Your task to perform on an android device: Search for flights from Tokyo to NYC Image 0: 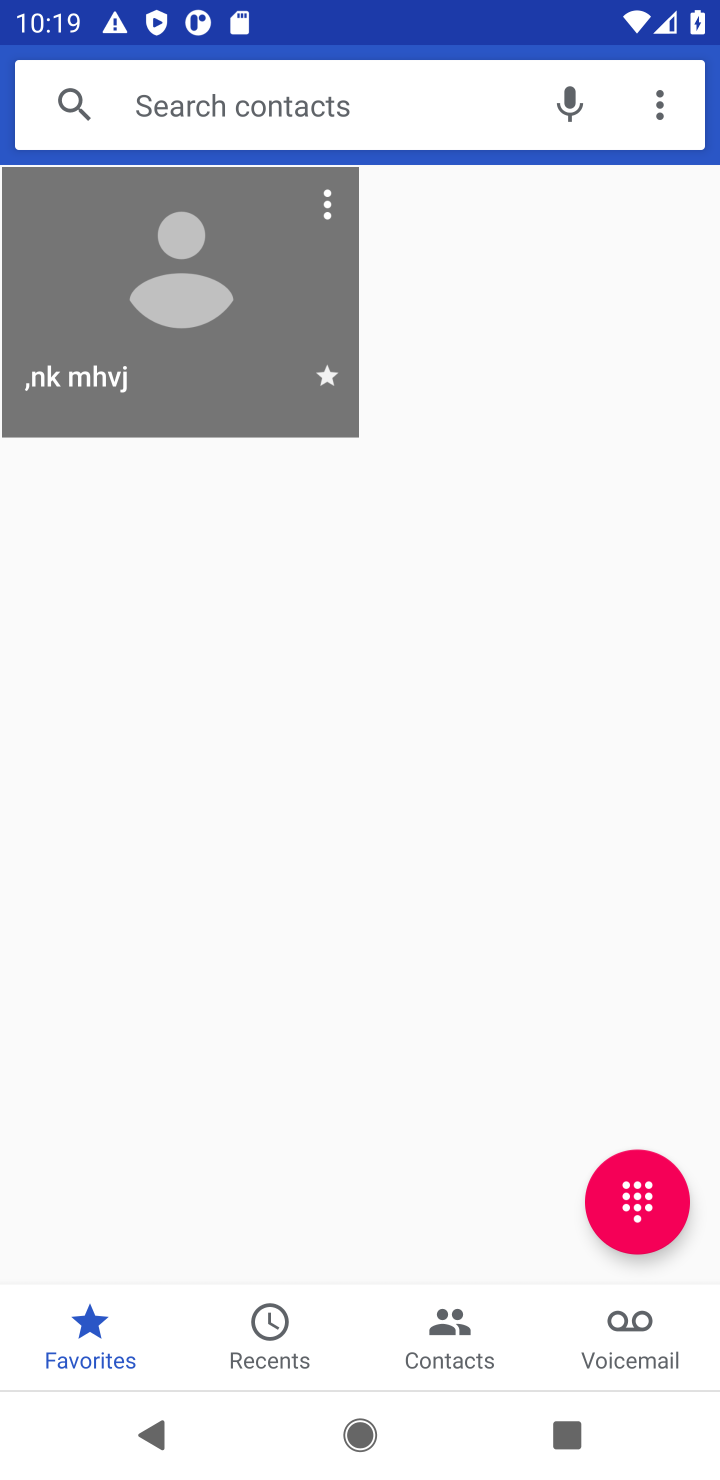
Step 0: press home button
Your task to perform on an android device: Search for flights from Tokyo to NYC Image 1: 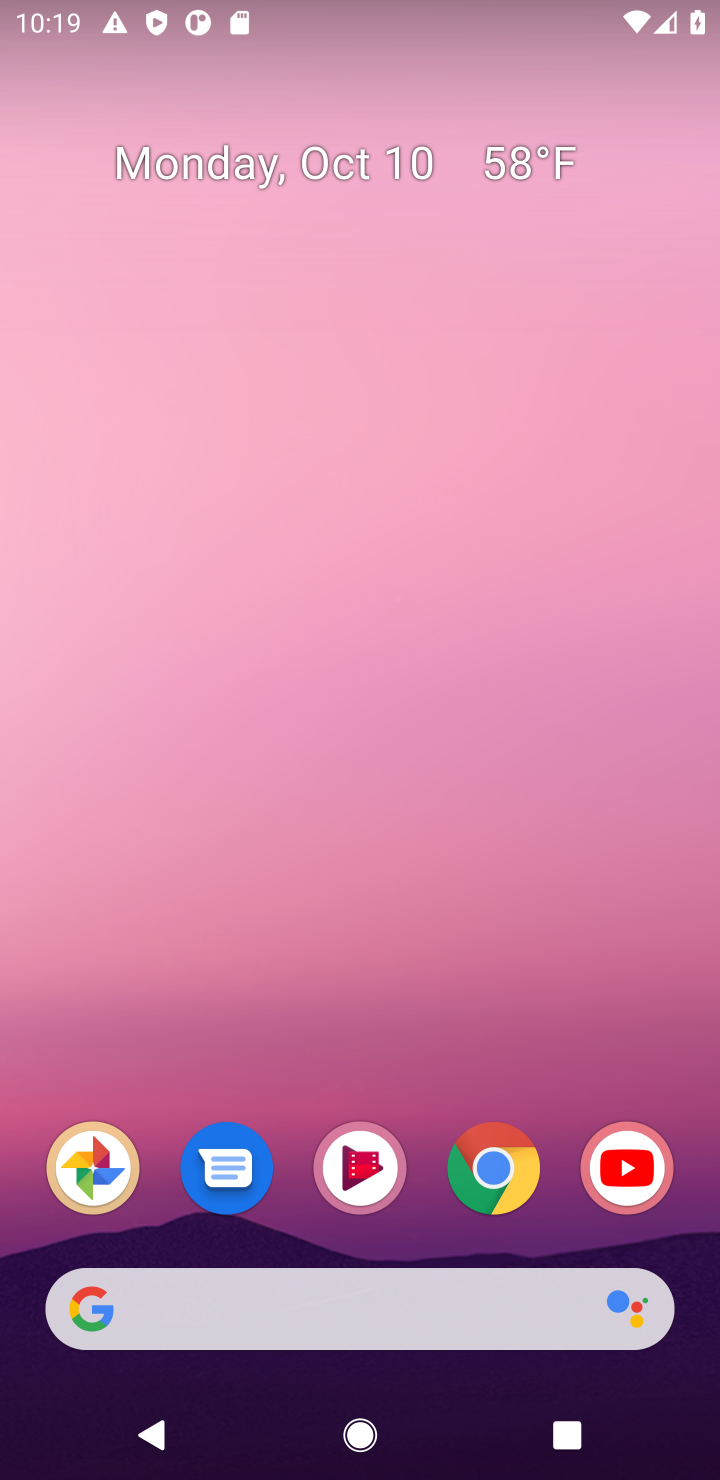
Step 1: click (374, 1283)
Your task to perform on an android device: Search for flights from Tokyo to NYC Image 2: 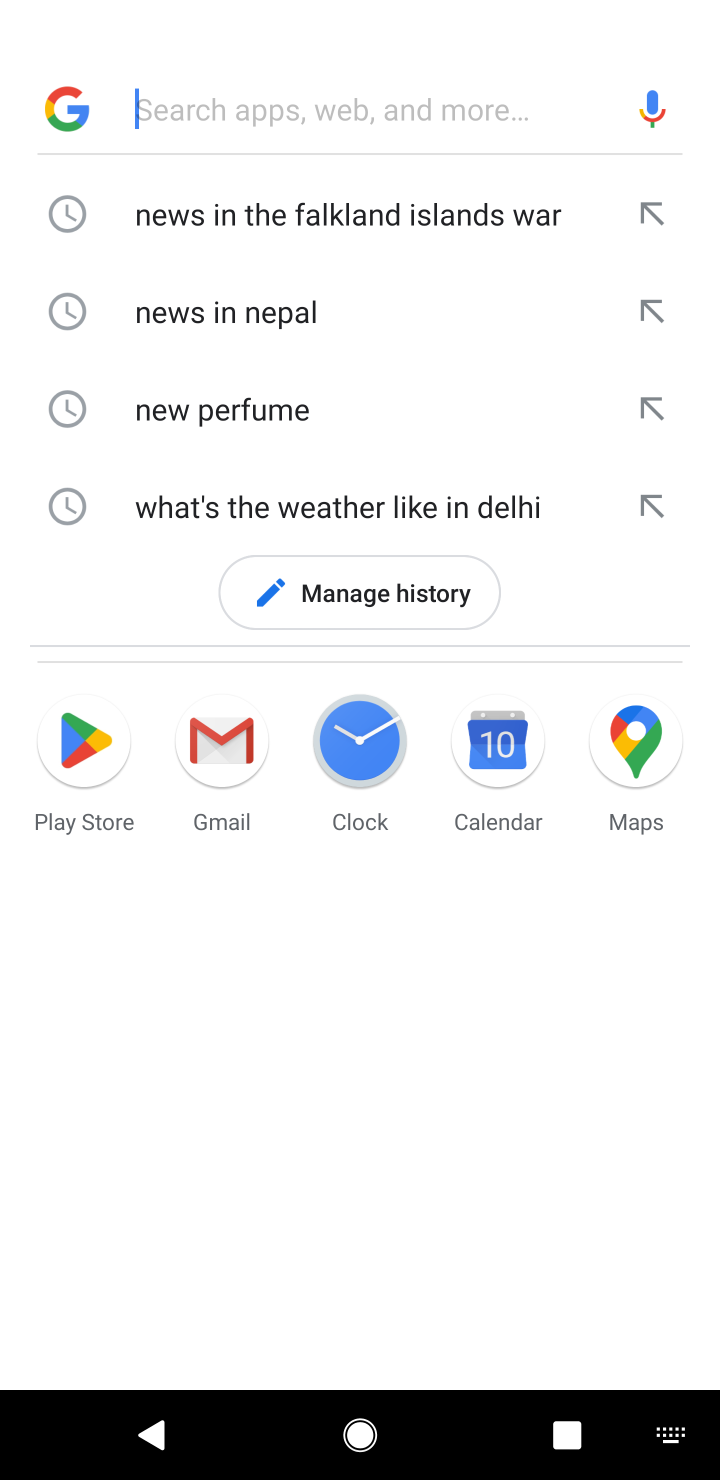
Step 2: type "flights from Tokyo to NYC"
Your task to perform on an android device: Search for flights from Tokyo to NYC Image 3: 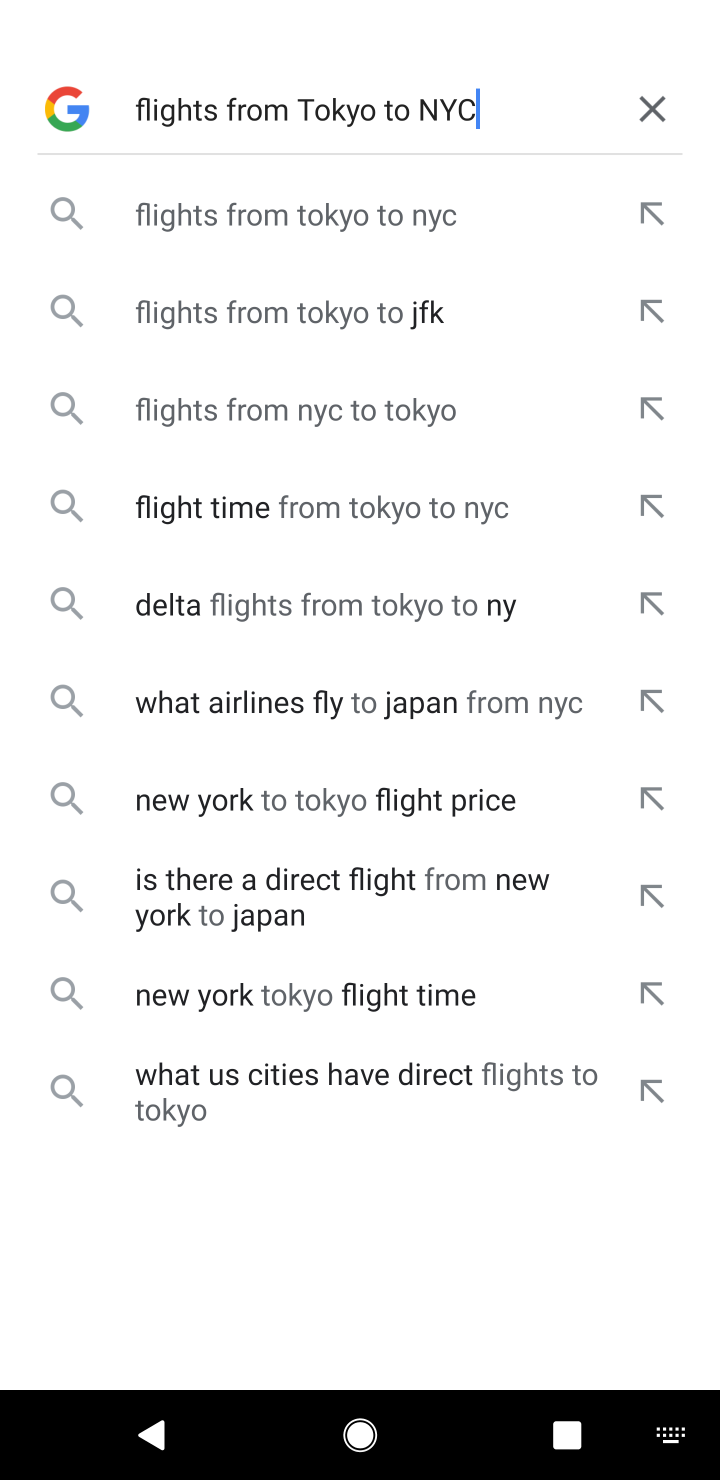
Step 3: click (350, 115)
Your task to perform on an android device: Search for flights from Tokyo to NYC Image 4: 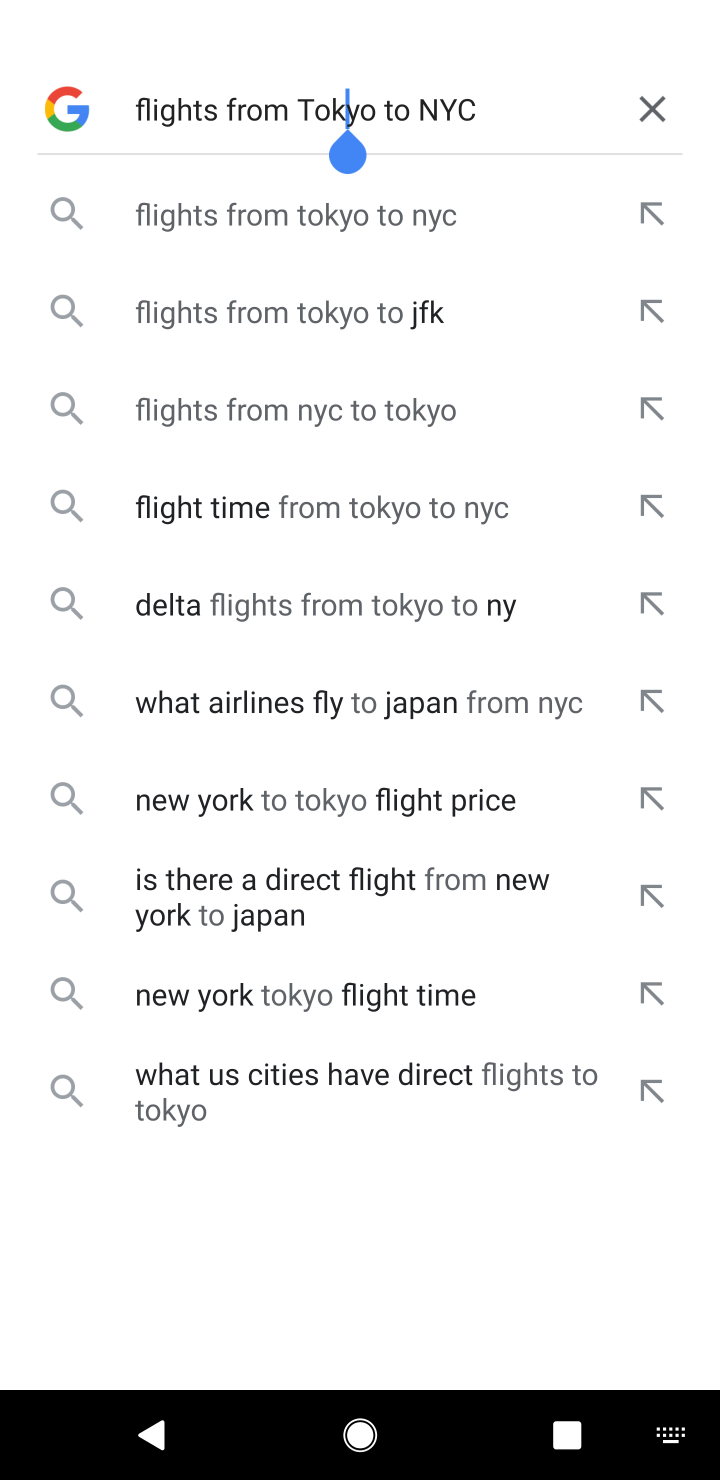
Step 4: click (494, 204)
Your task to perform on an android device: Search for flights from Tokyo to NYC Image 5: 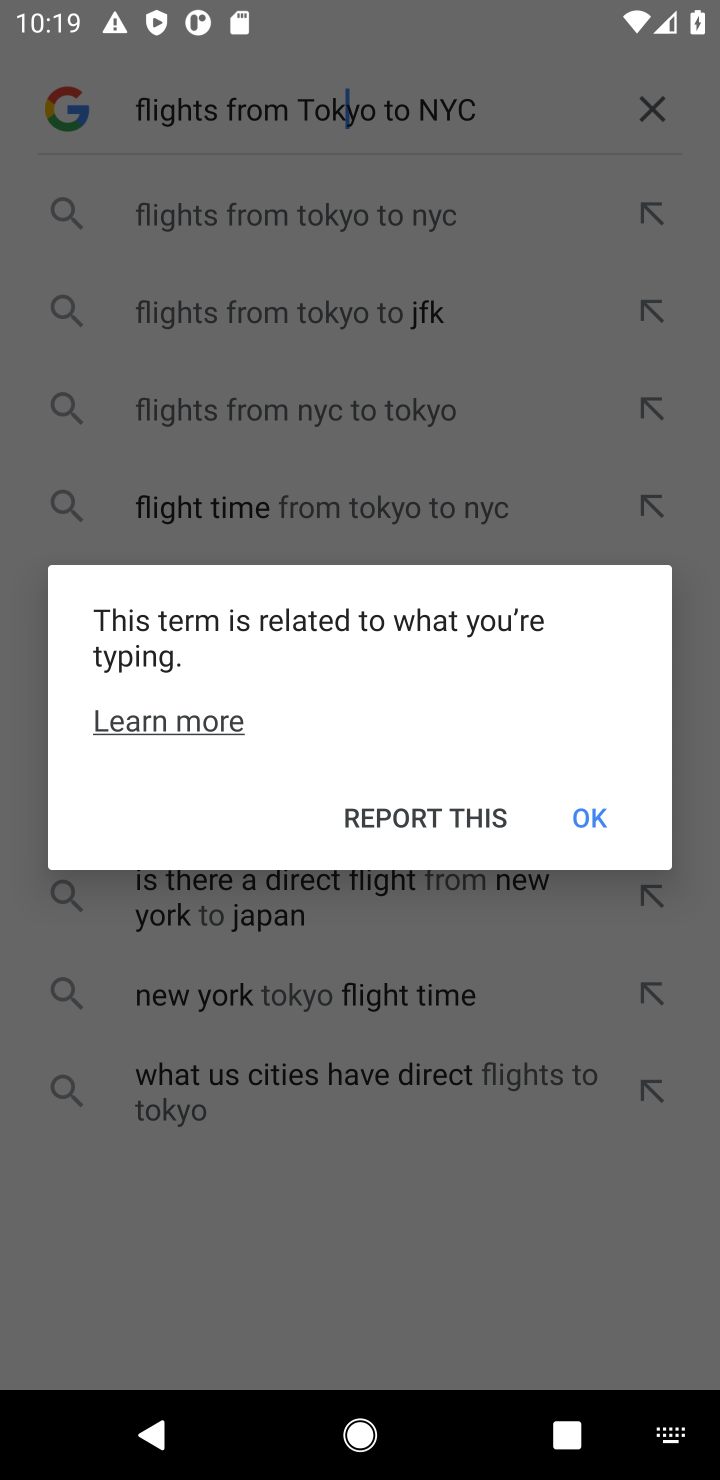
Step 5: click (606, 819)
Your task to perform on an android device: Search for flights from Tokyo to NYC Image 6: 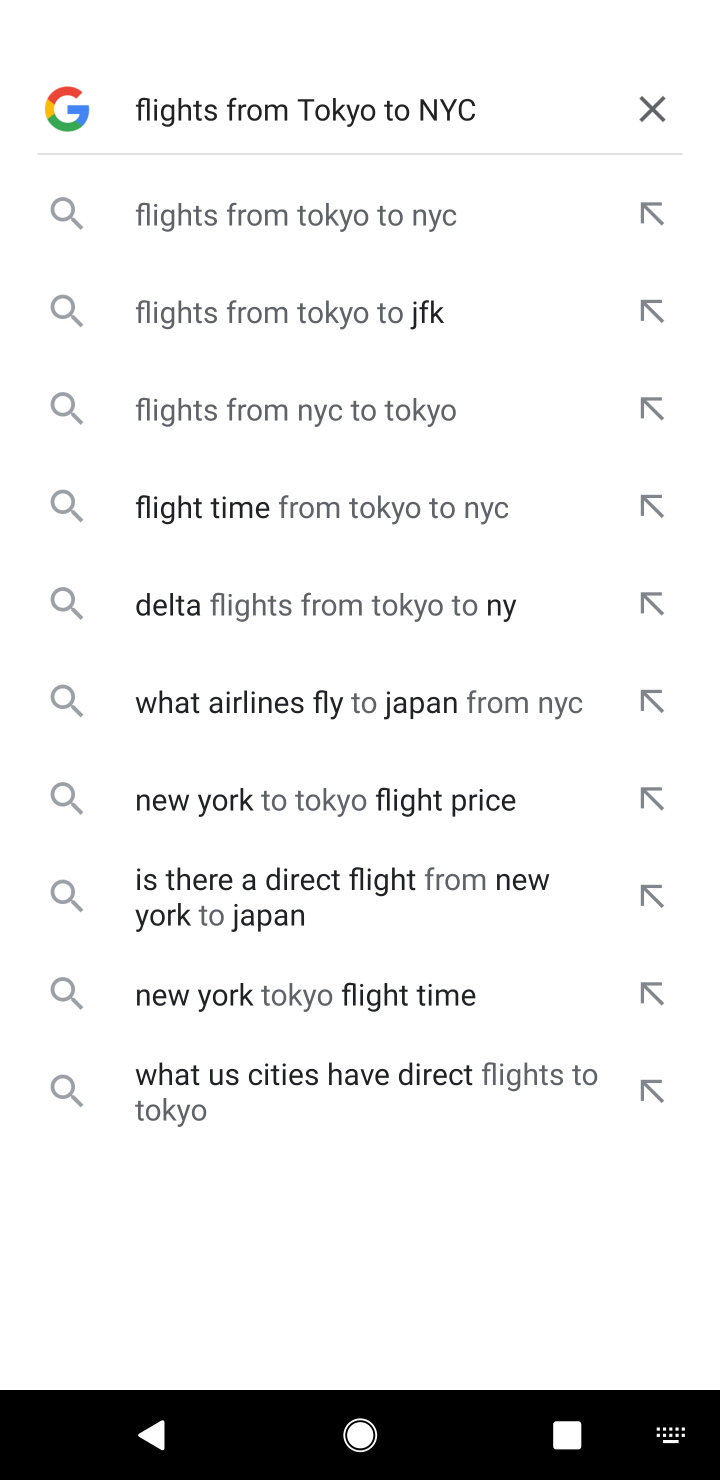
Step 6: click (169, 202)
Your task to perform on an android device: Search for flights from Tokyo to NYC Image 7: 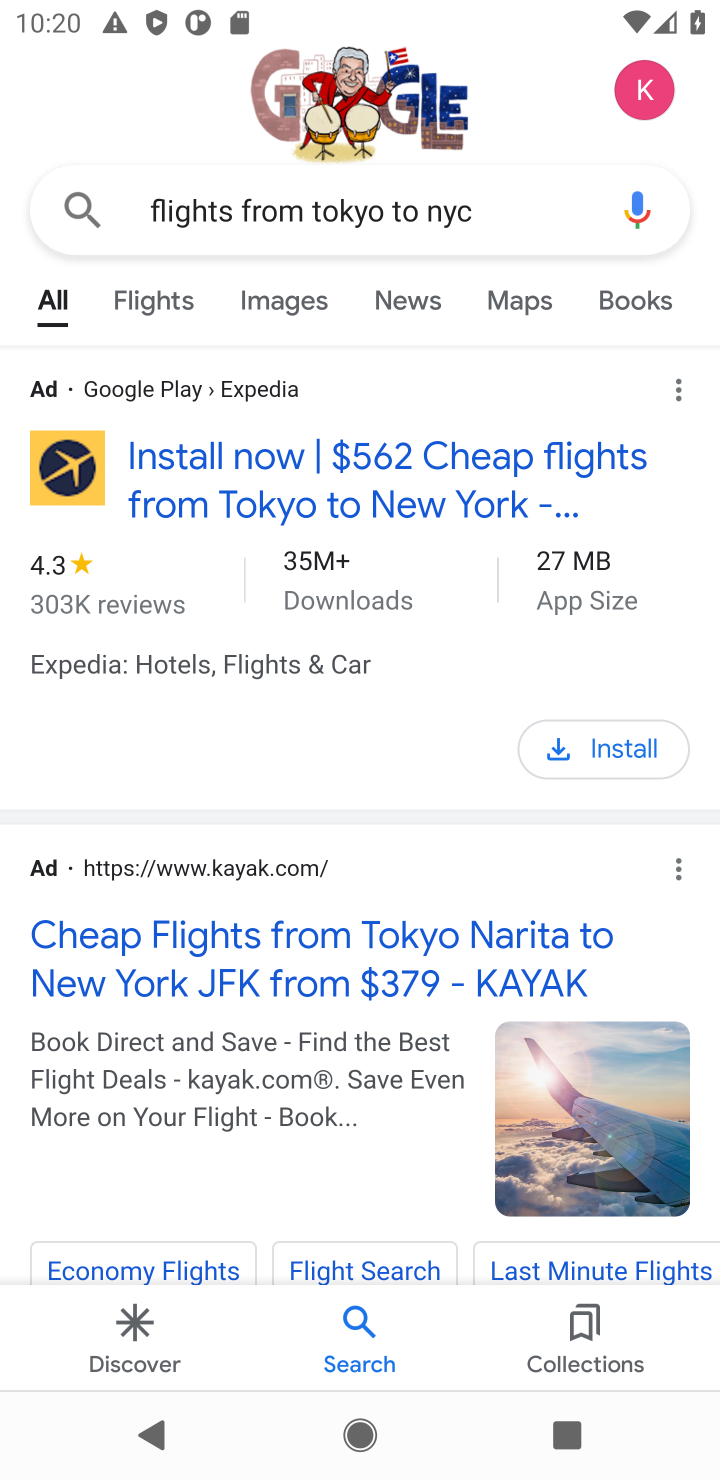
Step 7: task complete